Your task to perform on an android device: open app "Microsoft Excel" (install if not already installed) Image 0: 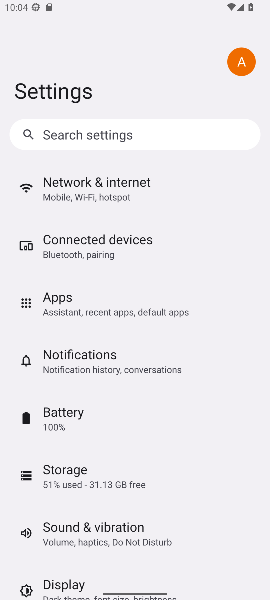
Step 0: press home button
Your task to perform on an android device: open app "Microsoft Excel" (install if not already installed) Image 1: 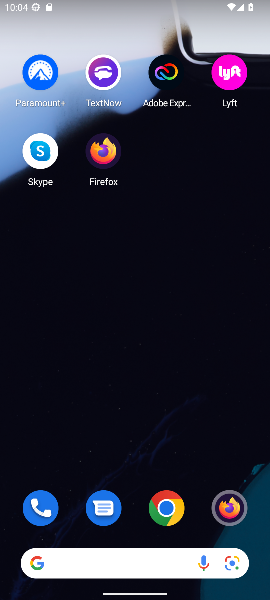
Step 1: drag from (130, 427) to (110, 0)
Your task to perform on an android device: open app "Microsoft Excel" (install if not already installed) Image 2: 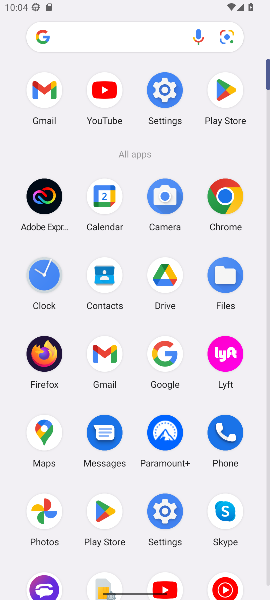
Step 2: click (226, 102)
Your task to perform on an android device: open app "Microsoft Excel" (install if not already installed) Image 3: 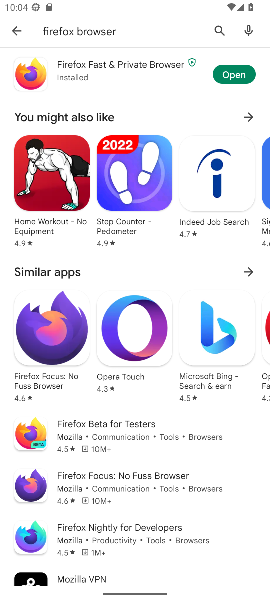
Step 3: click (212, 28)
Your task to perform on an android device: open app "Microsoft Excel" (install if not already installed) Image 4: 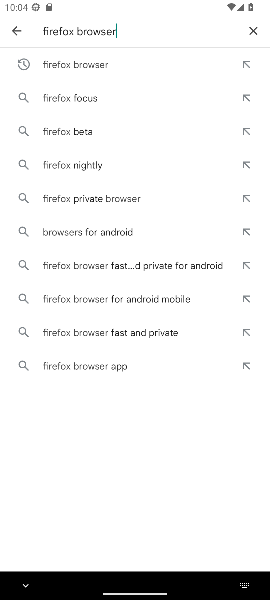
Step 4: click (251, 36)
Your task to perform on an android device: open app "Microsoft Excel" (install if not already installed) Image 5: 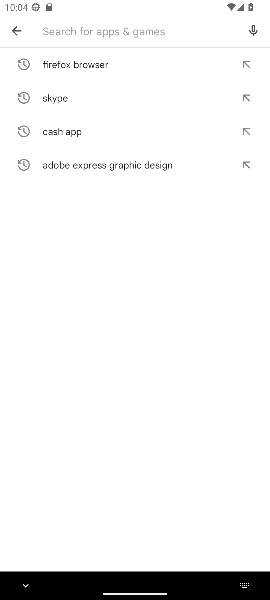
Step 5: type "Microsoft Excel"
Your task to perform on an android device: open app "Microsoft Excel" (install if not already installed) Image 6: 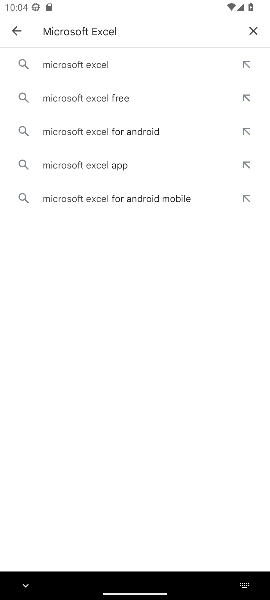
Step 6: click (90, 65)
Your task to perform on an android device: open app "Microsoft Excel" (install if not already installed) Image 7: 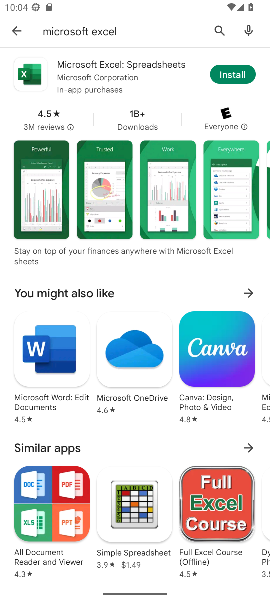
Step 7: click (229, 73)
Your task to perform on an android device: open app "Microsoft Excel" (install if not already installed) Image 8: 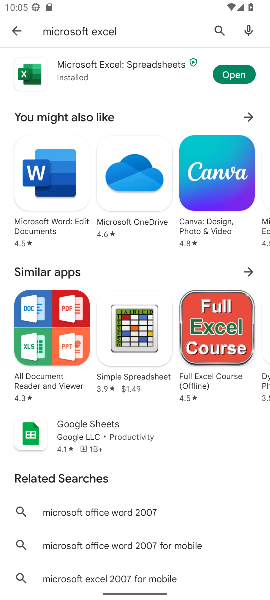
Step 8: click (228, 79)
Your task to perform on an android device: open app "Microsoft Excel" (install if not already installed) Image 9: 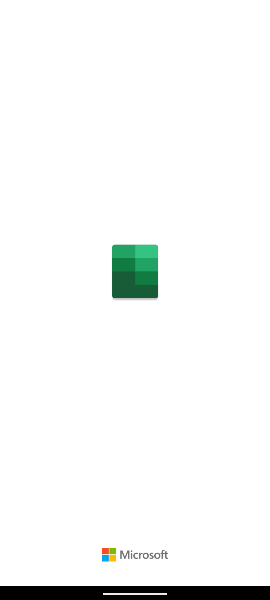
Step 9: task complete